Your task to perform on an android device: Search for seafood restaurants on Google Maps Image 0: 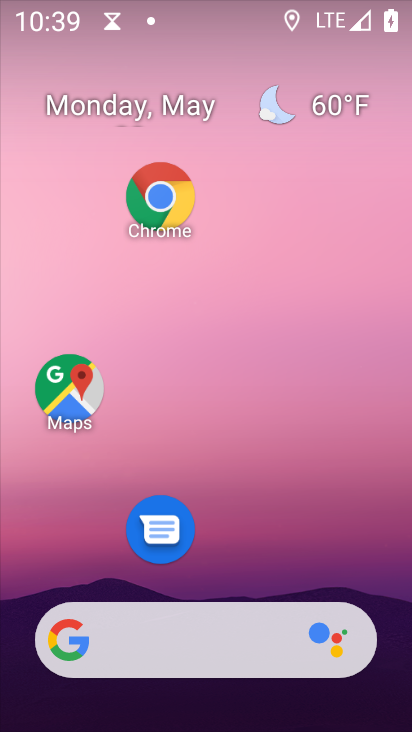
Step 0: drag from (217, 583) to (237, 0)
Your task to perform on an android device: Search for seafood restaurants on Google Maps Image 1: 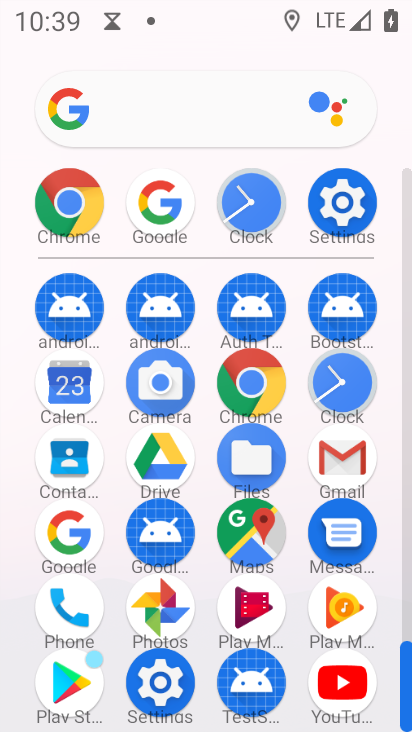
Step 1: click (256, 539)
Your task to perform on an android device: Search for seafood restaurants on Google Maps Image 2: 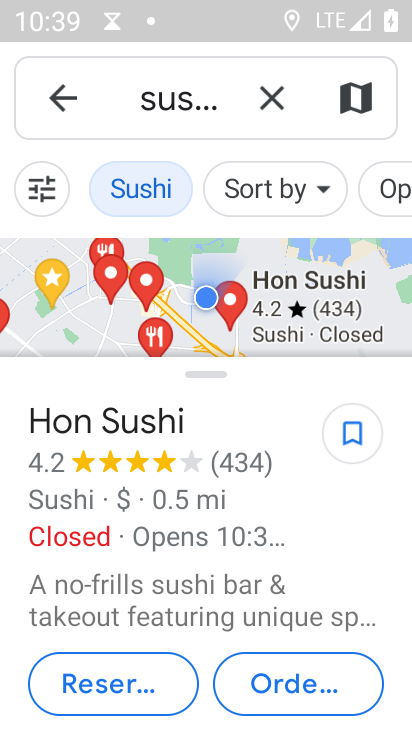
Step 2: click (263, 102)
Your task to perform on an android device: Search for seafood restaurants on Google Maps Image 3: 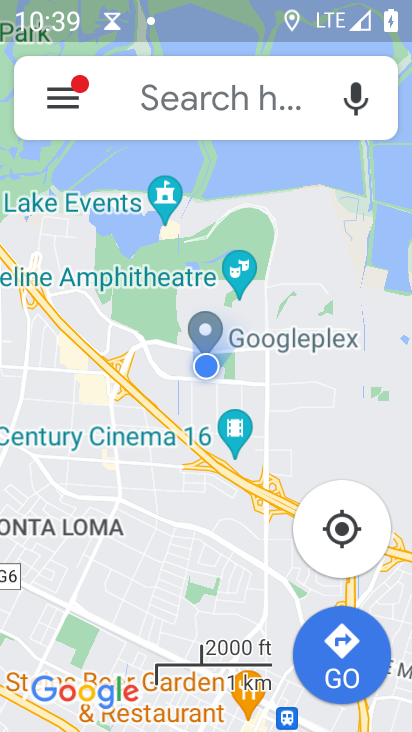
Step 3: click (207, 85)
Your task to perform on an android device: Search for seafood restaurants on Google Maps Image 4: 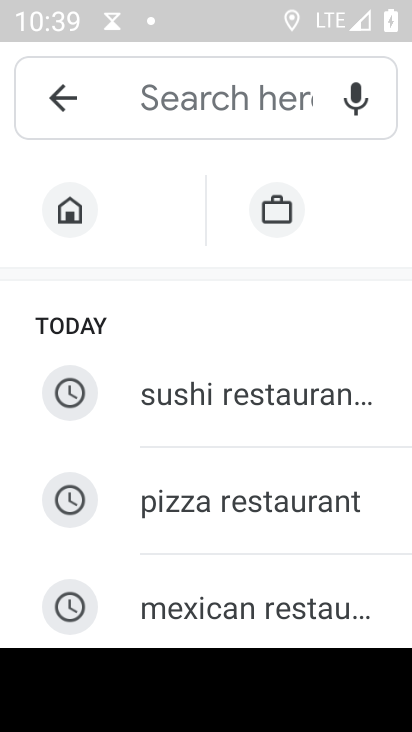
Step 4: click (235, 365)
Your task to perform on an android device: Search for seafood restaurants on Google Maps Image 5: 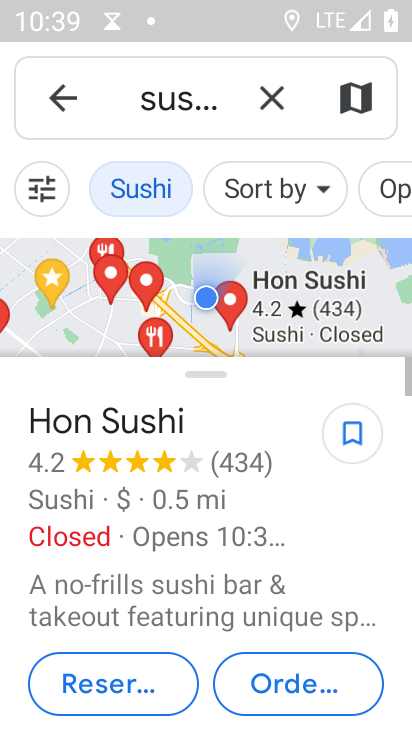
Step 5: click (272, 97)
Your task to perform on an android device: Search for seafood restaurants on Google Maps Image 6: 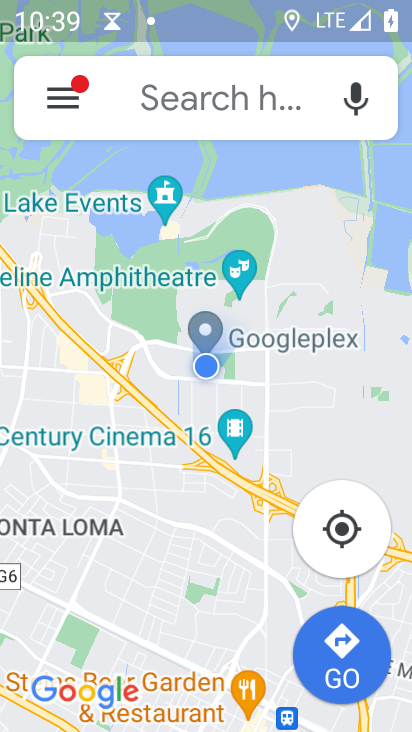
Step 6: click (166, 98)
Your task to perform on an android device: Search for seafood restaurants on Google Maps Image 7: 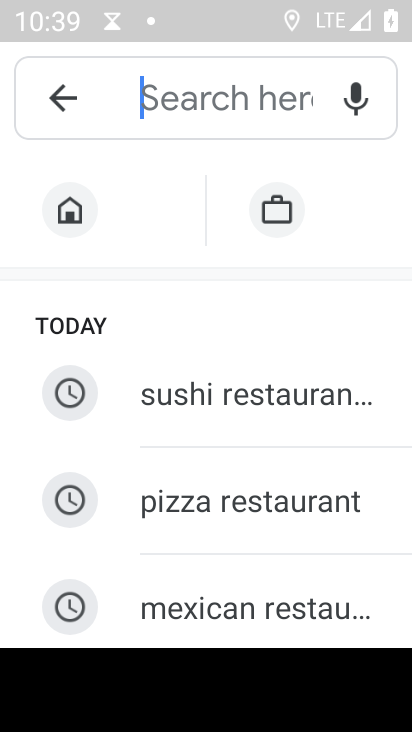
Step 7: drag from (198, 525) to (226, 327)
Your task to perform on an android device: Search for seafood restaurants on Google Maps Image 8: 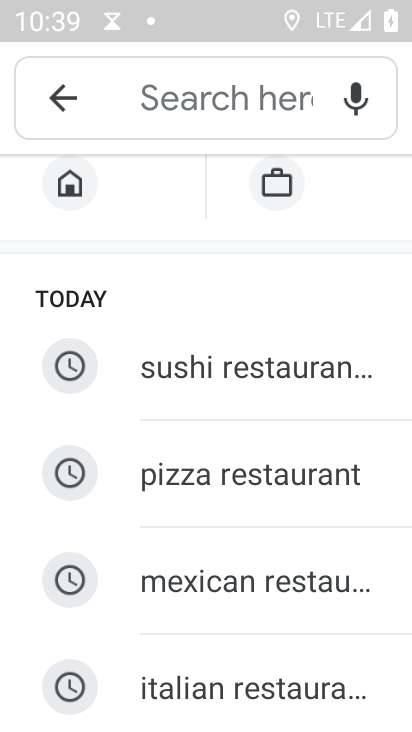
Step 8: drag from (190, 668) to (202, 365)
Your task to perform on an android device: Search for seafood restaurants on Google Maps Image 9: 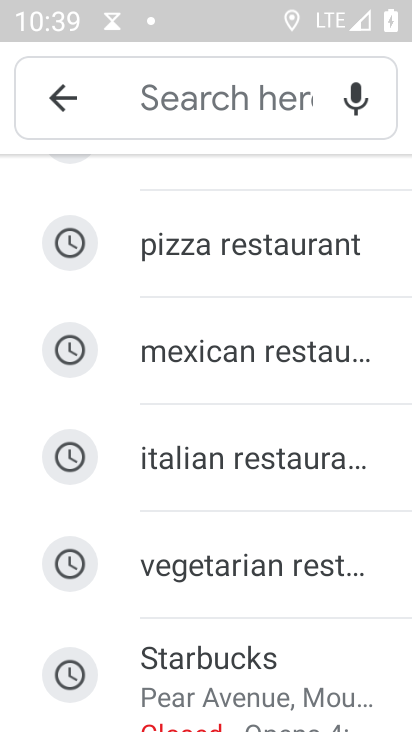
Step 9: drag from (195, 678) to (229, 404)
Your task to perform on an android device: Search for seafood restaurants on Google Maps Image 10: 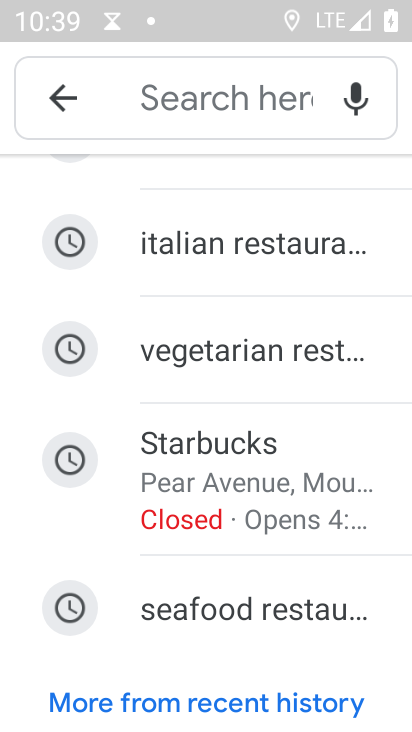
Step 10: click (210, 614)
Your task to perform on an android device: Search for seafood restaurants on Google Maps Image 11: 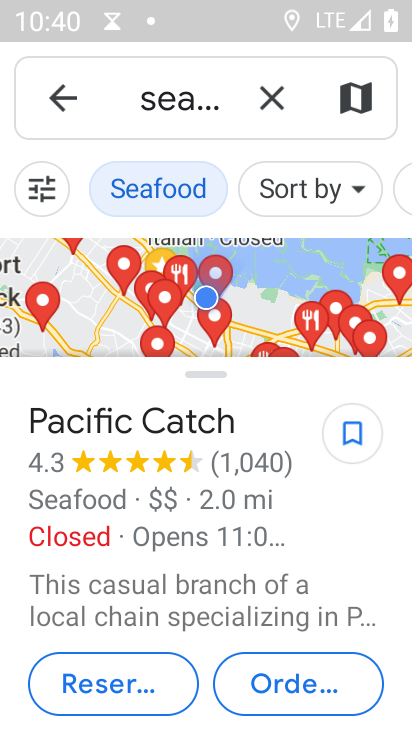
Step 11: task complete